Your task to perform on an android device: turn off javascript in the chrome app Image 0: 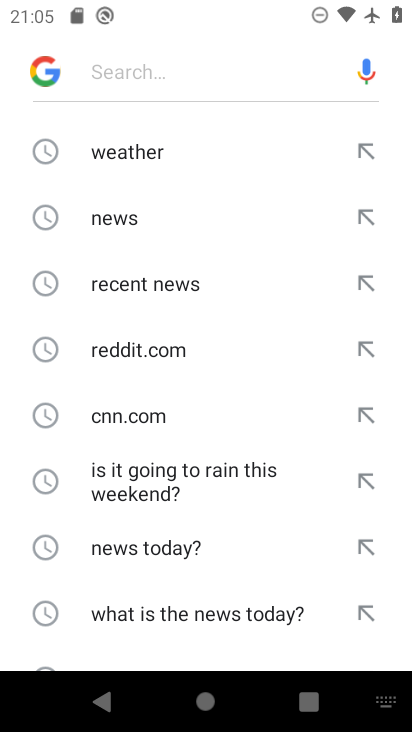
Step 0: press home button
Your task to perform on an android device: turn off javascript in the chrome app Image 1: 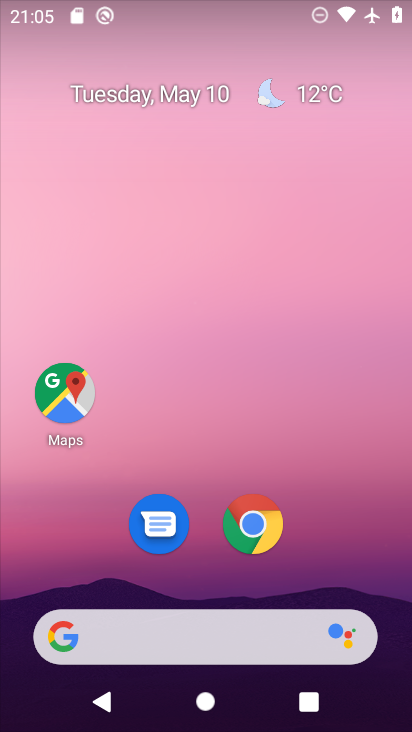
Step 1: click (251, 516)
Your task to perform on an android device: turn off javascript in the chrome app Image 2: 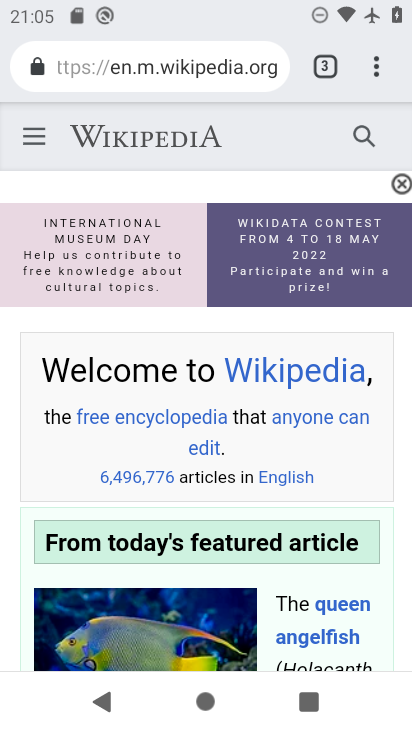
Step 2: click (373, 68)
Your task to perform on an android device: turn off javascript in the chrome app Image 3: 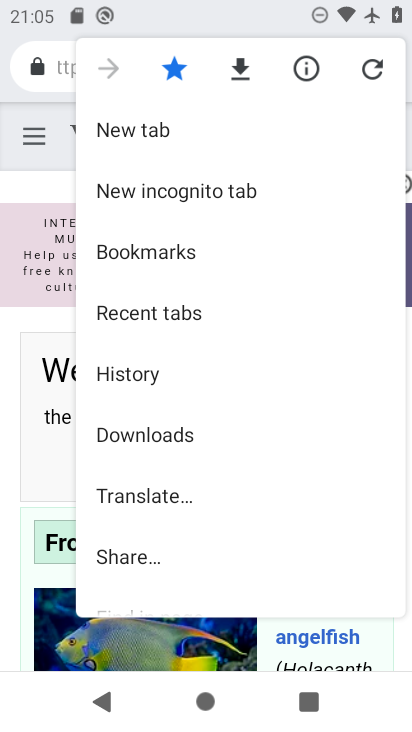
Step 3: drag from (198, 475) to (249, 164)
Your task to perform on an android device: turn off javascript in the chrome app Image 4: 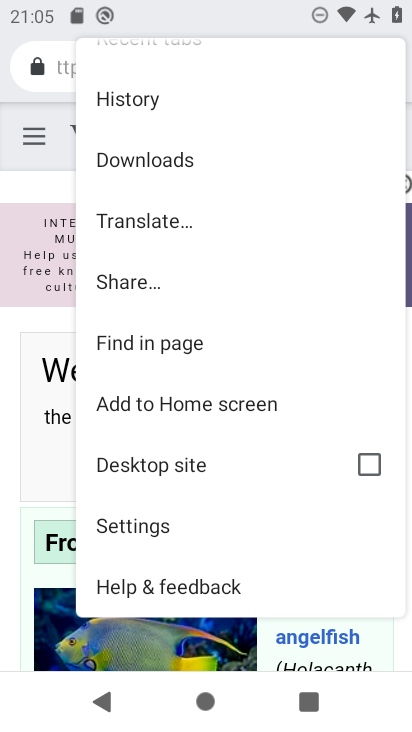
Step 4: click (163, 520)
Your task to perform on an android device: turn off javascript in the chrome app Image 5: 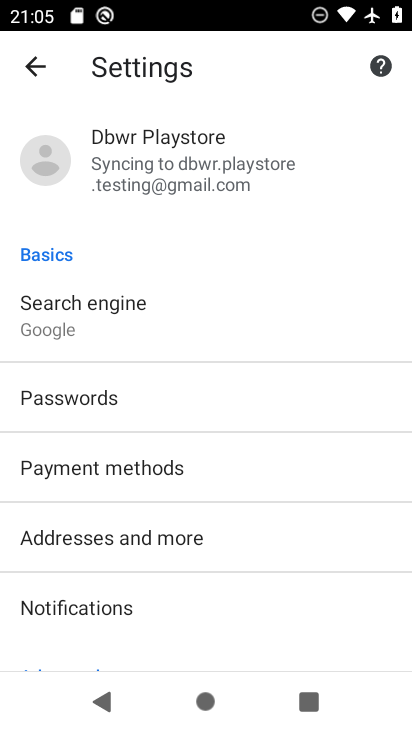
Step 5: drag from (290, 601) to (273, 243)
Your task to perform on an android device: turn off javascript in the chrome app Image 6: 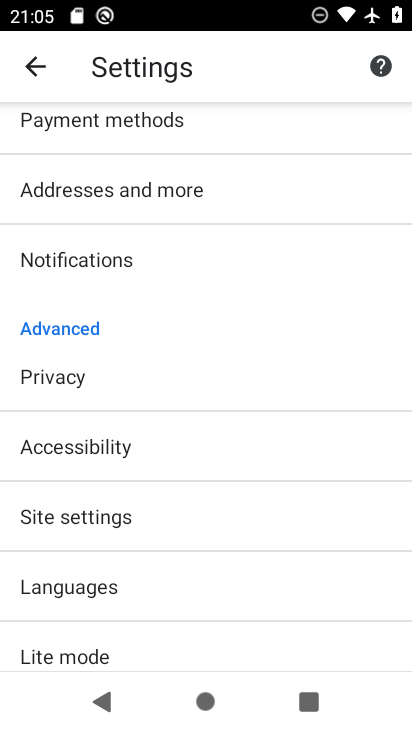
Step 6: click (169, 521)
Your task to perform on an android device: turn off javascript in the chrome app Image 7: 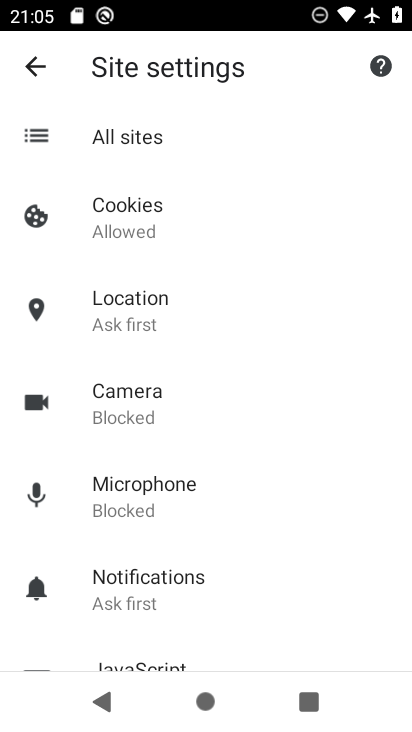
Step 7: drag from (225, 516) to (232, 229)
Your task to perform on an android device: turn off javascript in the chrome app Image 8: 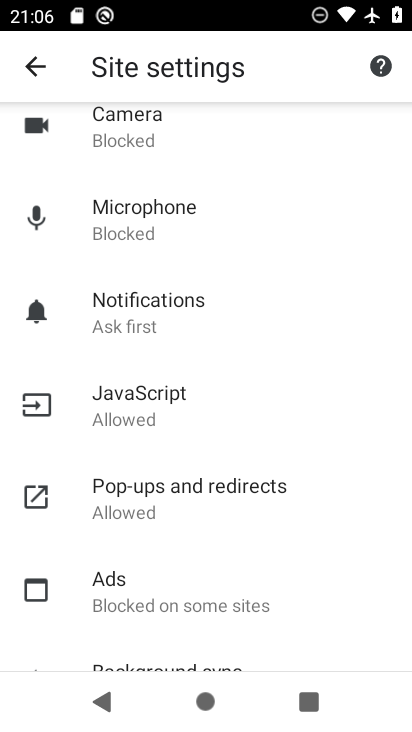
Step 8: click (184, 400)
Your task to perform on an android device: turn off javascript in the chrome app Image 9: 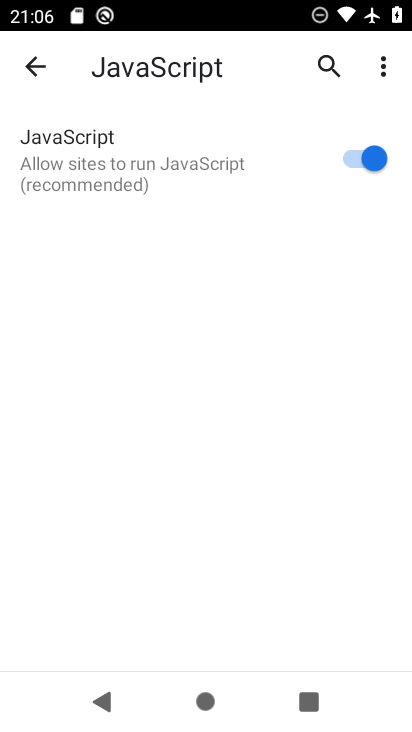
Step 9: click (341, 152)
Your task to perform on an android device: turn off javascript in the chrome app Image 10: 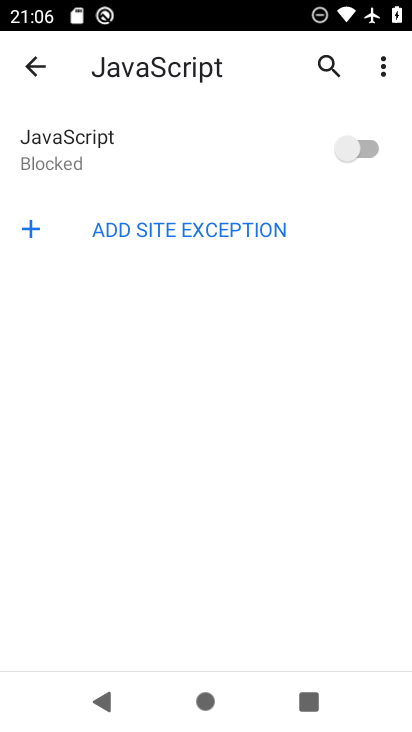
Step 10: task complete